Your task to perform on an android device: open app "Pandora - Music & Podcasts" (install if not already installed) Image 0: 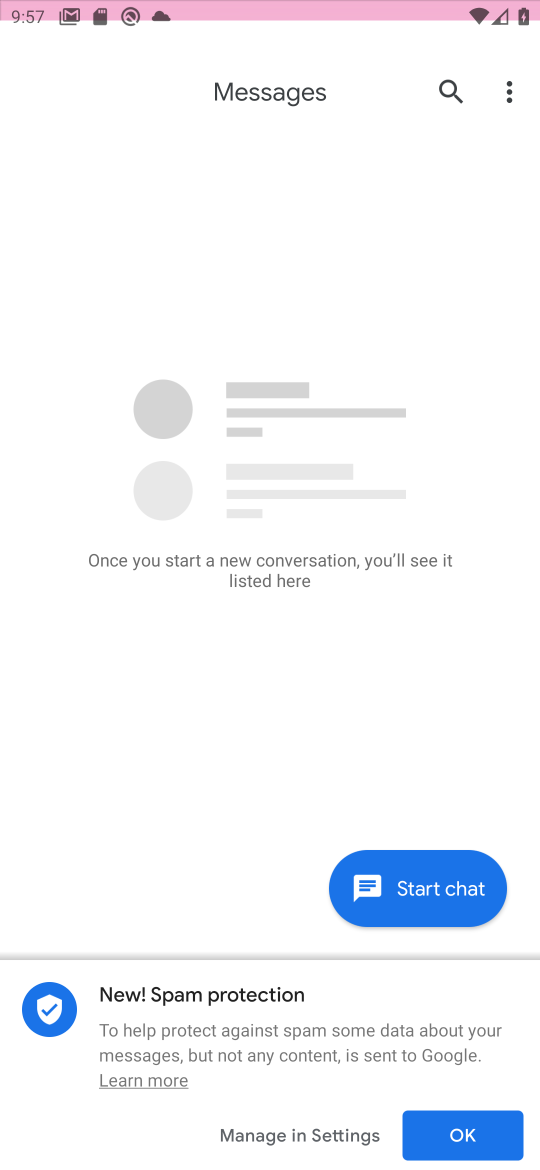
Step 0: press home button
Your task to perform on an android device: open app "Pandora - Music & Podcasts" (install if not already installed) Image 1: 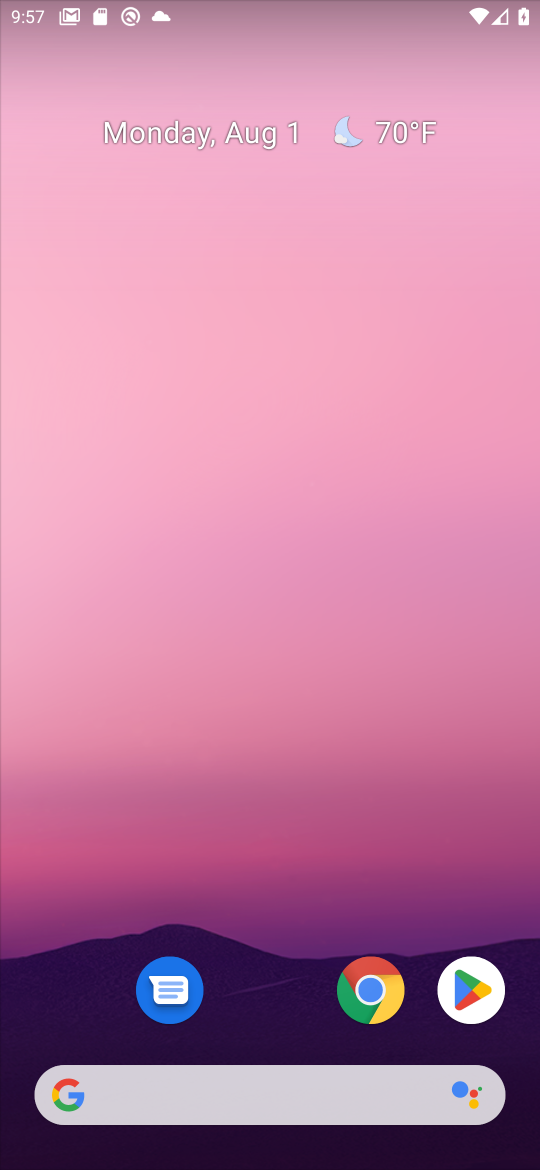
Step 1: click (454, 993)
Your task to perform on an android device: open app "Pandora - Music & Podcasts" (install if not already installed) Image 2: 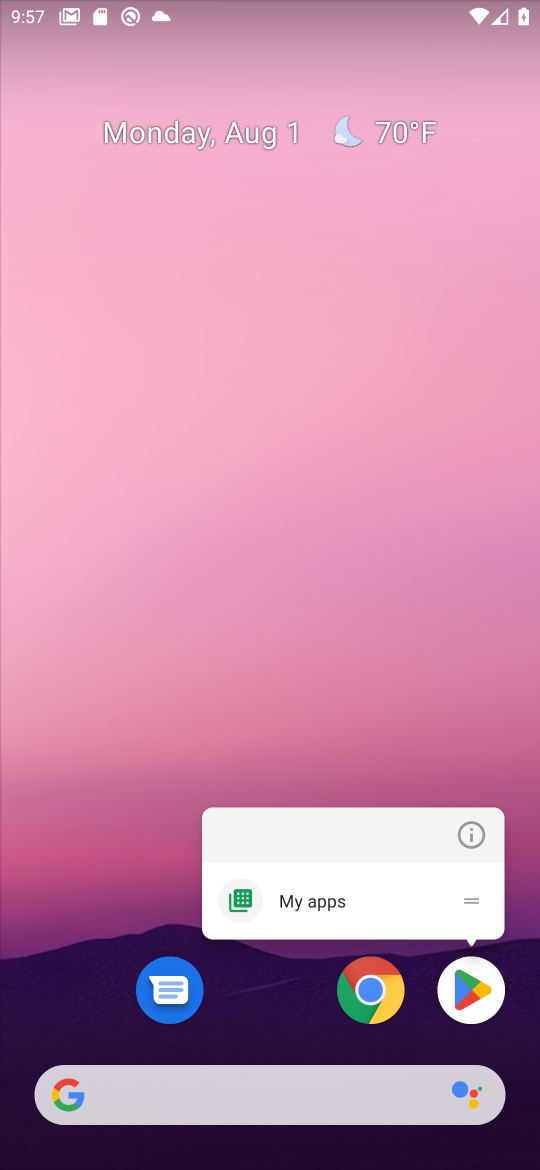
Step 2: click (460, 997)
Your task to perform on an android device: open app "Pandora - Music & Podcasts" (install if not already installed) Image 3: 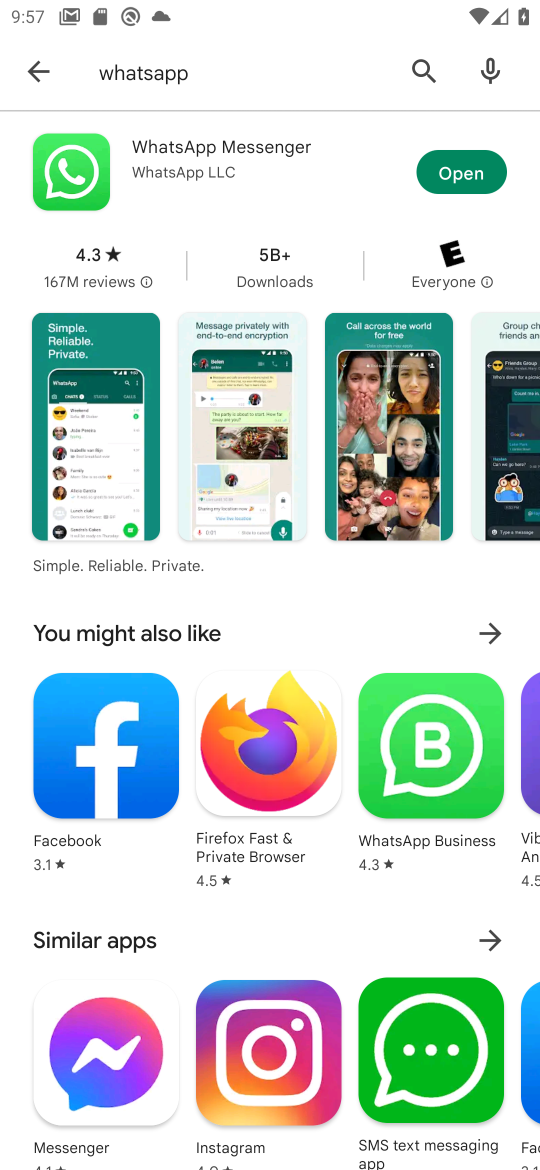
Step 3: click (413, 65)
Your task to perform on an android device: open app "Pandora - Music & Podcasts" (install if not already installed) Image 4: 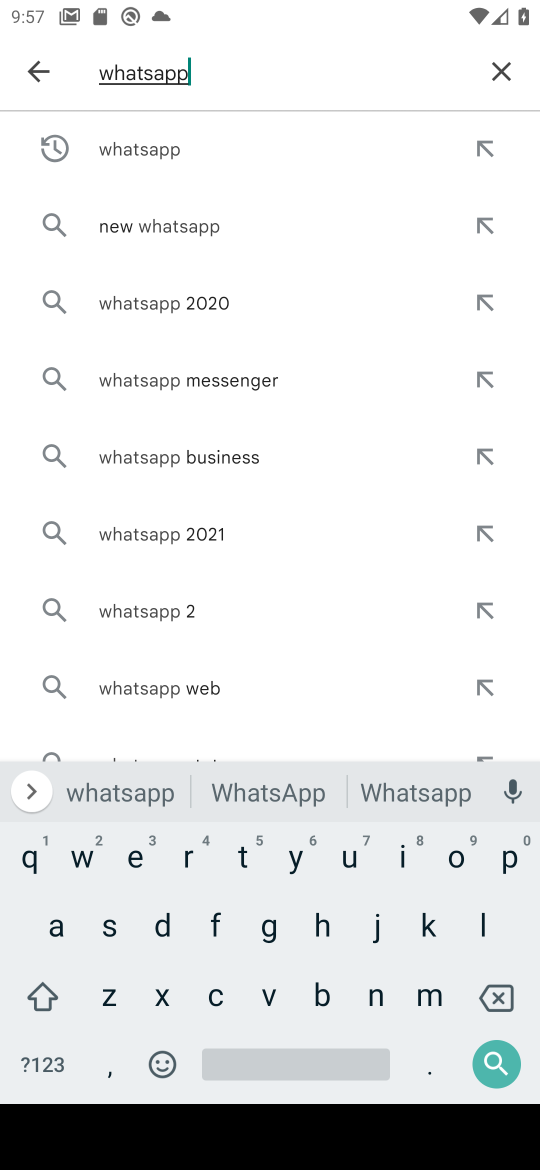
Step 4: click (497, 68)
Your task to perform on an android device: open app "Pandora - Music & Podcasts" (install if not already installed) Image 5: 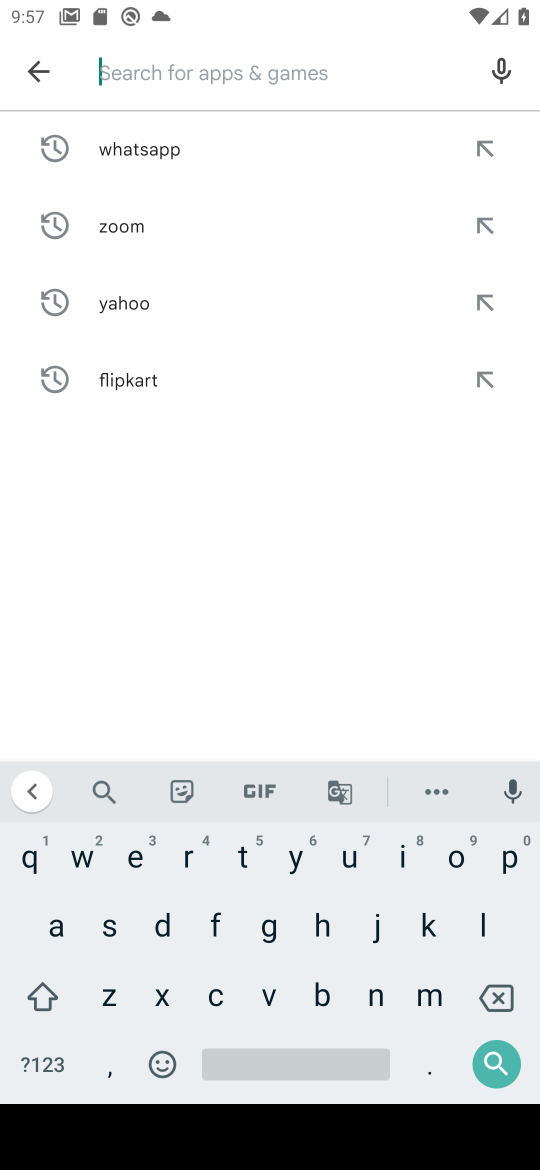
Step 5: click (500, 859)
Your task to perform on an android device: open app "Pandora - Music & Podcasts" (install if not already installed) Image 6: 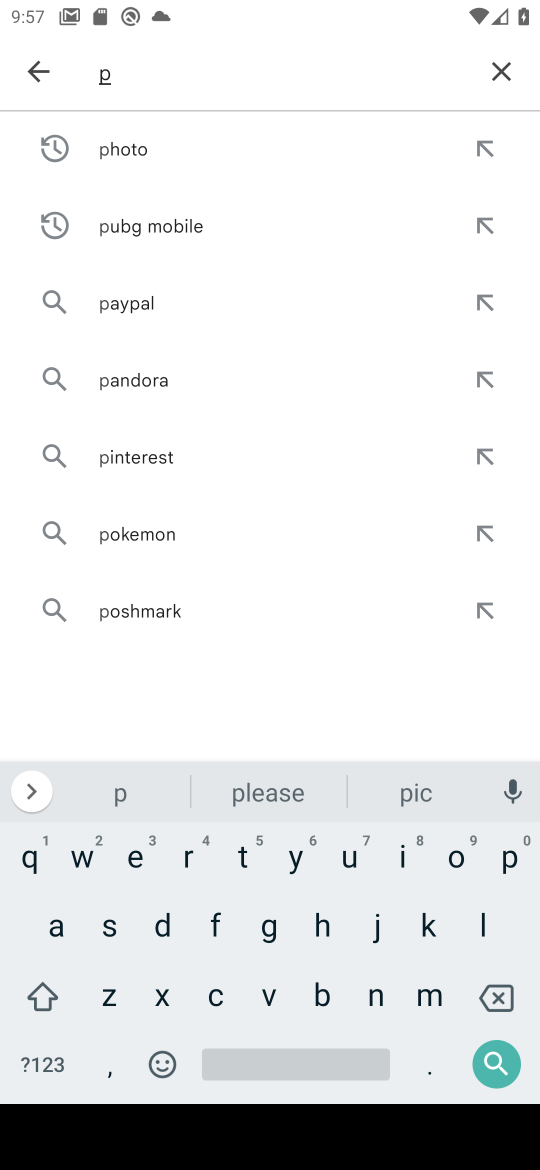
Step 6: click (55, 920)
Your task to perform on an android device: open app "Pandora - Music & Podcasts" (install if not already installed) Image 7: 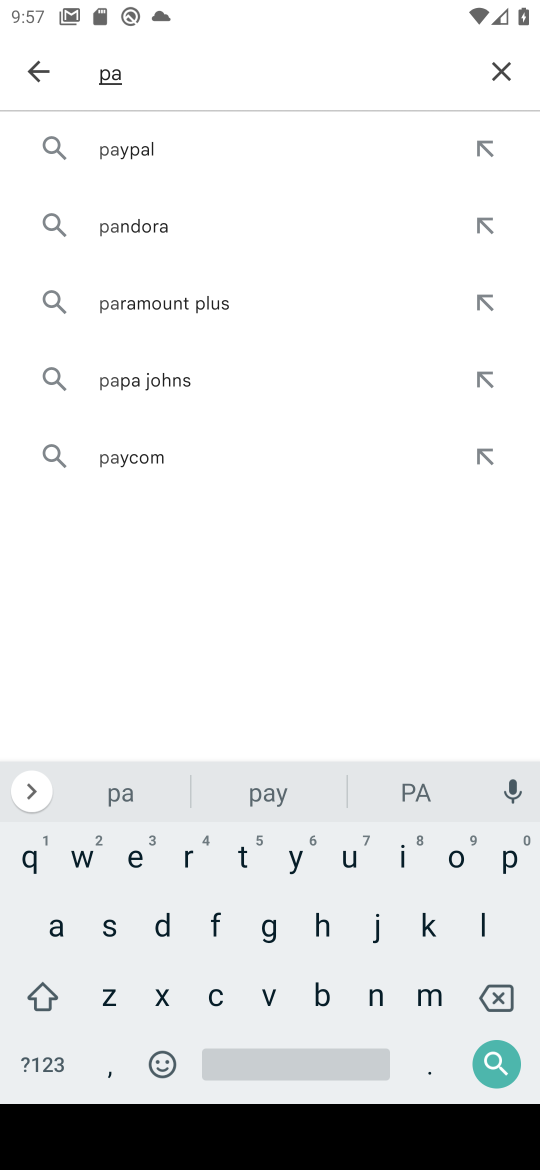
Step 7: click (374, 987)
Your task to perform on an android device: open app "Pandora - Music & Podcasts" (install if not already installed) Image 8: 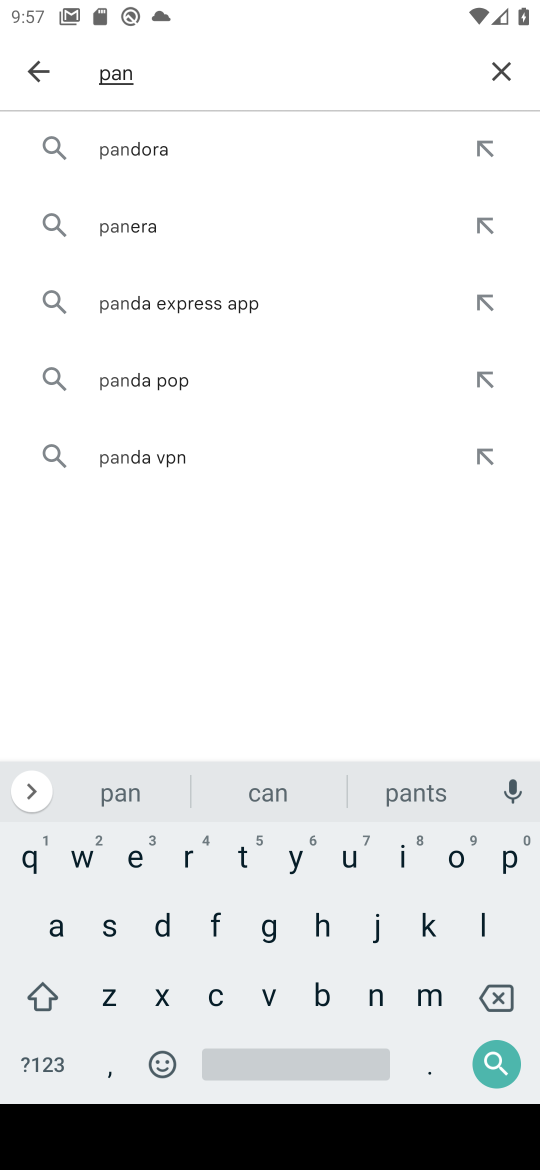
Step 8: click (128, 156)
Your task to perform on an android device: open app "Pandora - Music & Podcasts" (install if not already installed) Image 9: 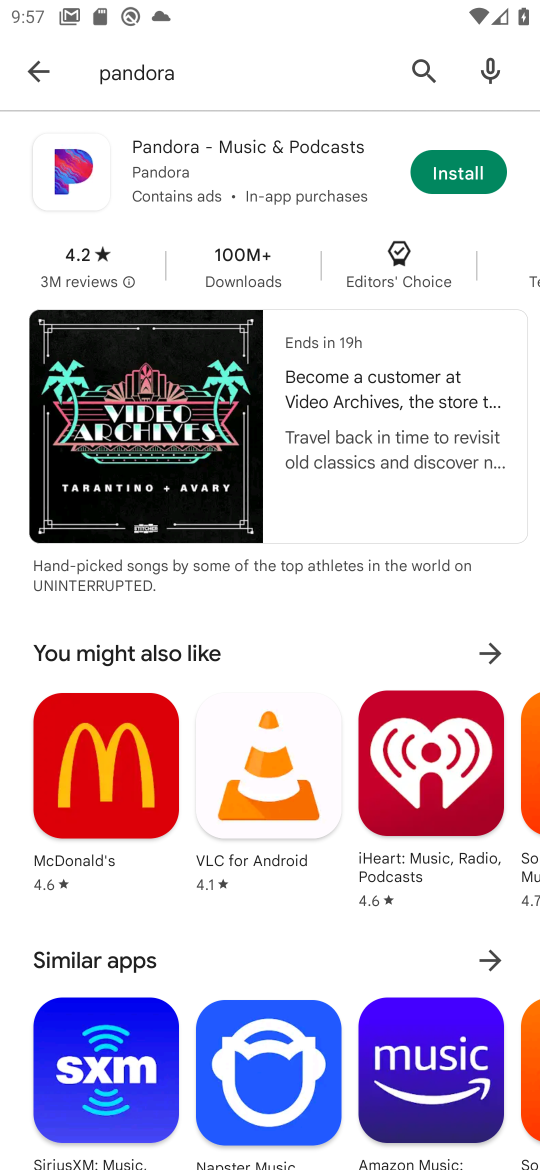
Step 9: click (452, 173)
Your task to perform on an android device: open app "Pandora - Music & Podcasts" (install if not already installed) Image 10: 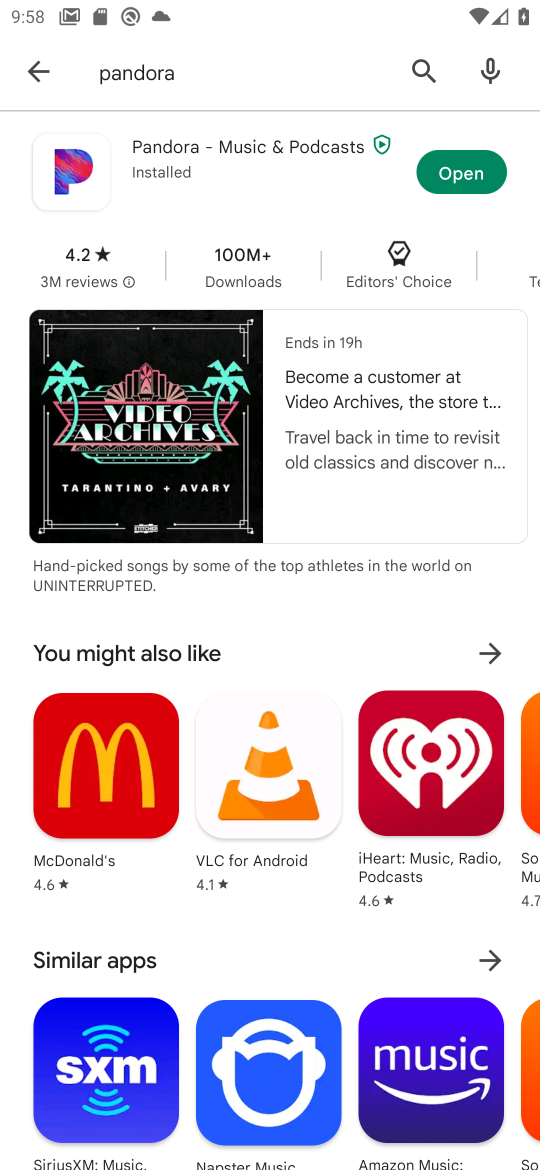
Step 10: click (474, 167)
Your task to perform on an android device: open app "Pandora - Music & Podcasts" (install if not already installed) Image 11: 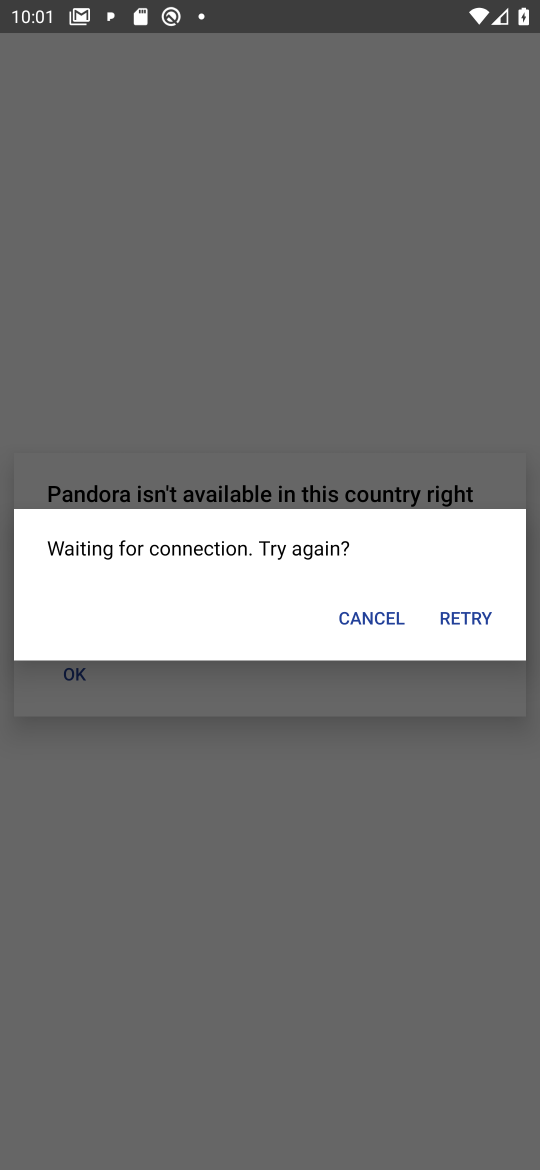
Step 11: task complete